Your task to perform on an android device: turn on wifi Image 0: 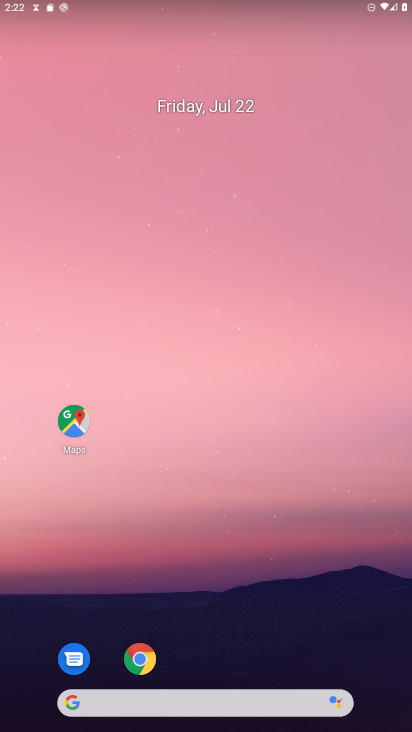
Step 0: drag from (333, 541) to (247, 114)
Your task to perform on an android device: turn on wifi Image 1: 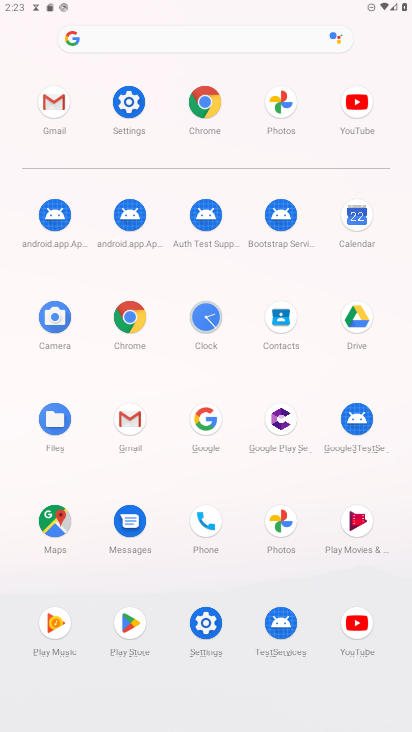
Step 1: click (133, 111)
Your task to perform on an android device: turn on wifi Image 2: 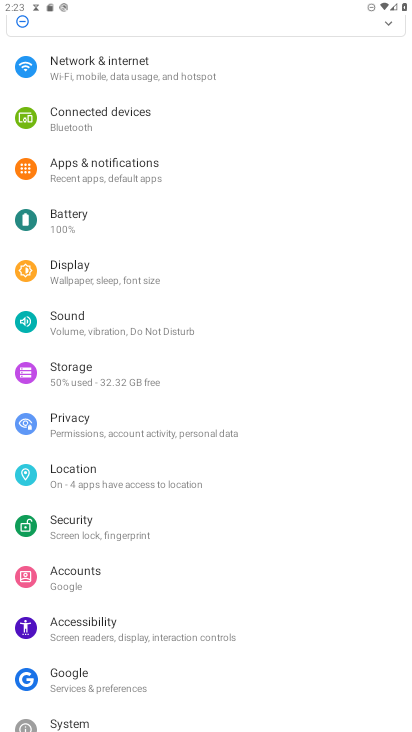
Step 2: drag from (88, 168) to (190, 549)
Your task to perform on an android device: turn on wifi Image 3: 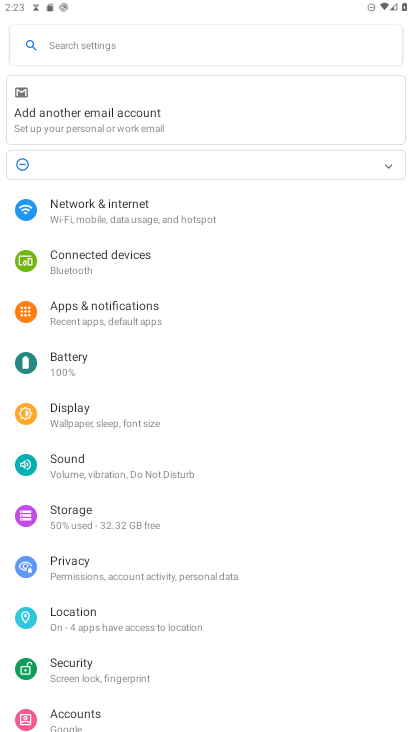
Step 3: click (76, 212)
Your task to perform on an android device: turn on wifi Image 4: 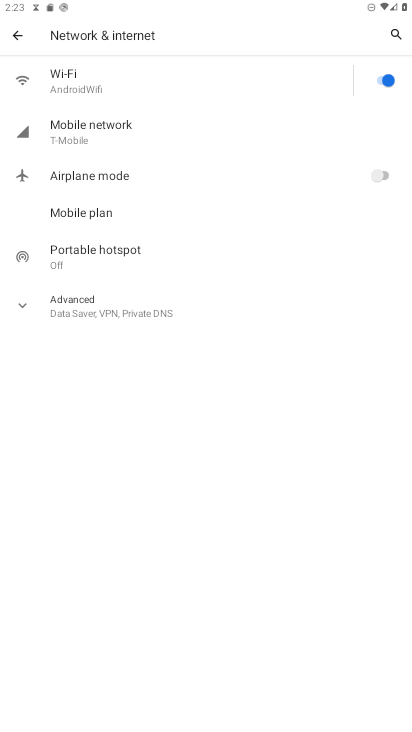
Step 4: task complete